Your task to perform on an android device: Open network settings Image 0: 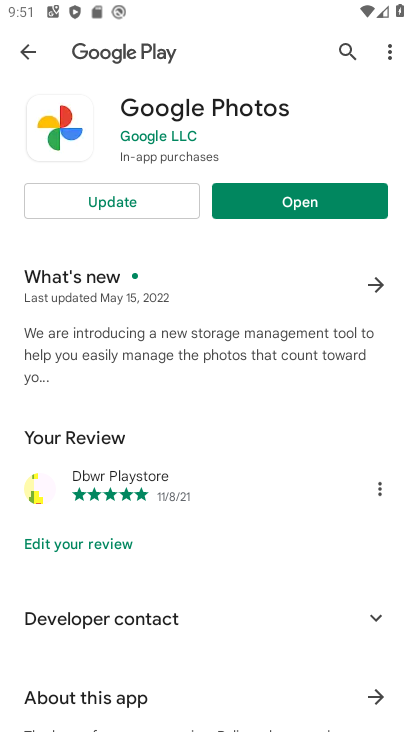
Step 0: press home button
Your task to perform on an android device: Open network settings Image 1: 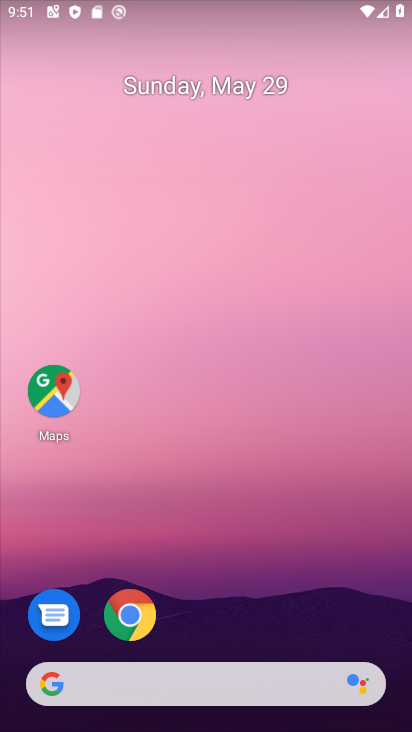
Step 1: drag from (179, 635) to (226, 16)
Your task to perform on an android device: Open network settings Image 2: 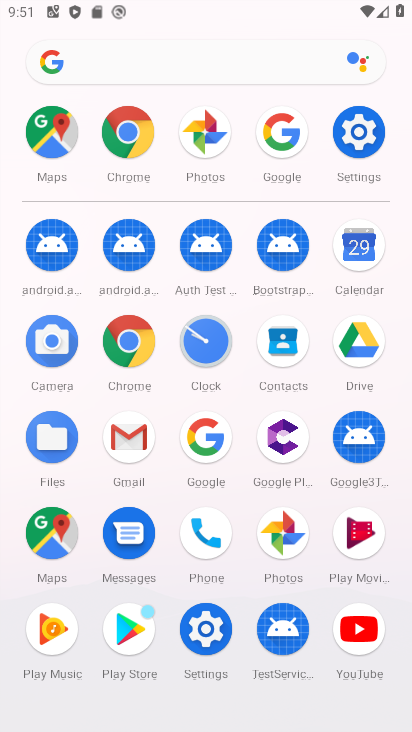
Step 2: click (211, 630)
Your task to perform on an android device: Open network settings Image 3: 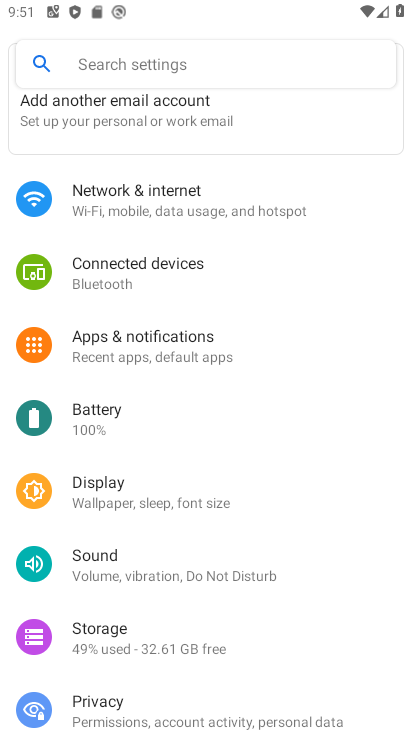
Step 3: click (159, 206)
Your task to perform on an android device: Open network settings Image 4: 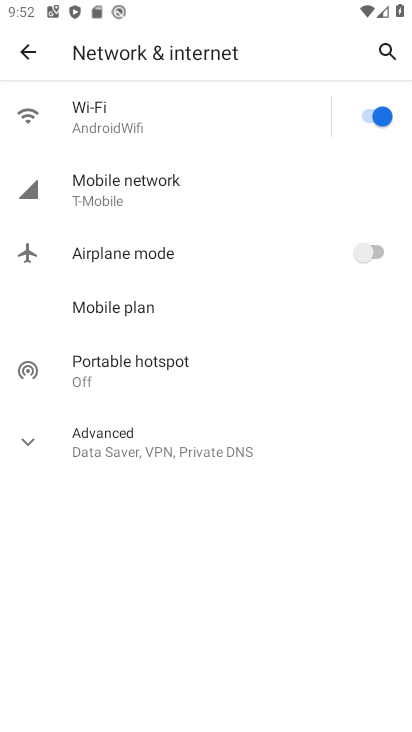
Step 4: click (99, 174)
Your task to perform on an android device: Open network settings Image 5: 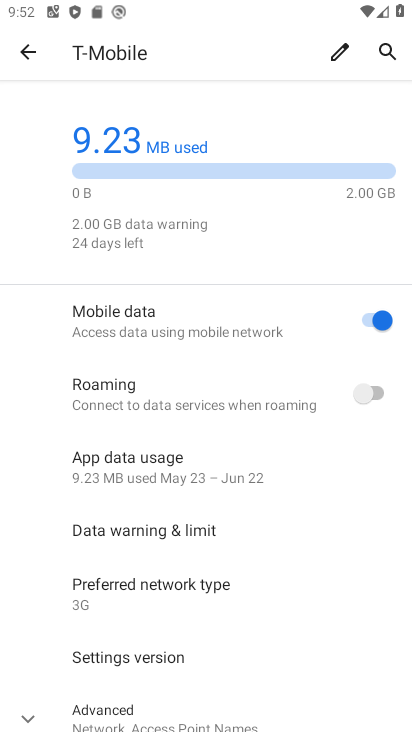
Step 5: task complete